Your task to perform on an android device: Show me productivity apps on the Play Store Image 0: 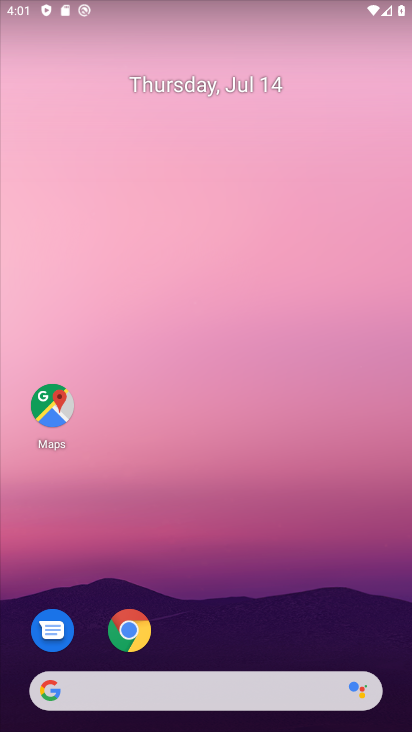
Step 0: drag from (237, 632) to (290, 358)
Your task to perform on an android device: Show me productivity apps on the Play Store Image 1: 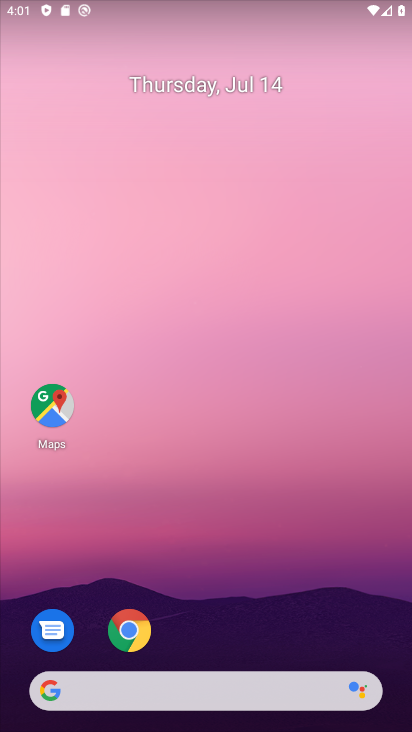
Step 1: drag from (292, 652) to (38, 703)
Your task to perform on an android device: Show me productivity apps on the Play Store Image 2: 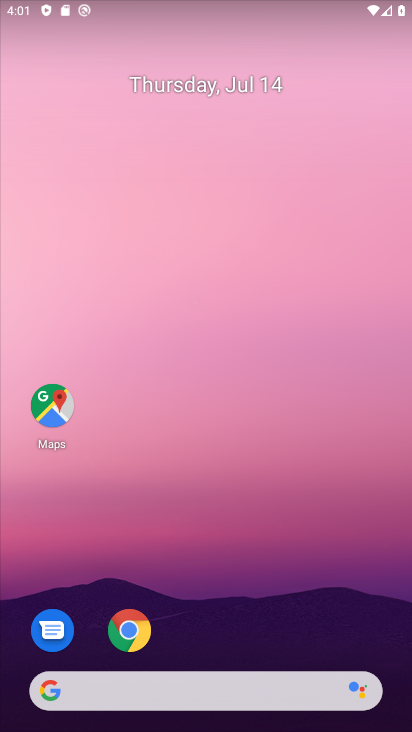
Step 2: drag from (225, 635) to (292, 1)
Your task to perform on an android device: Show me productivity apps on the Play Store Image 3: 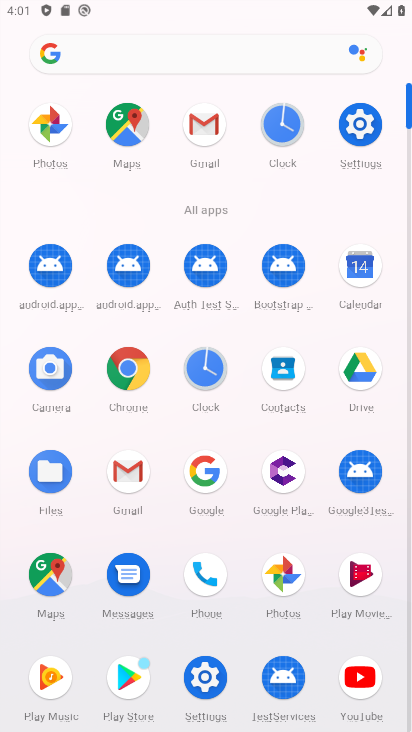
Step 3: click (129, 678)
Your task to perform on an android device: Show me productivity apps on the Play Store Image 4: 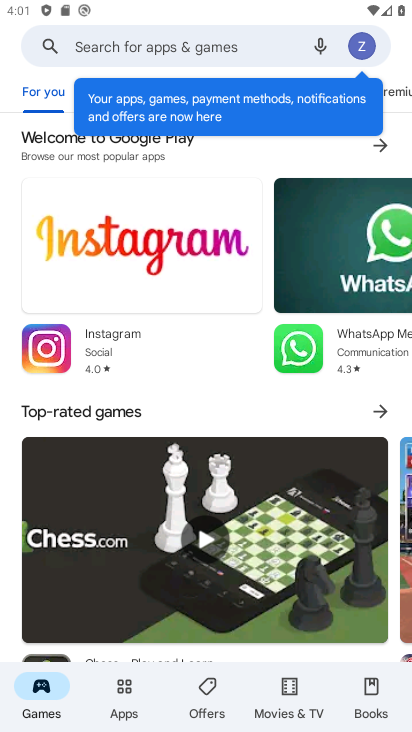
Step 4: click (118, 684)
Your task to perform on an android device: Show me productivity apps on the Play Store Image 5: 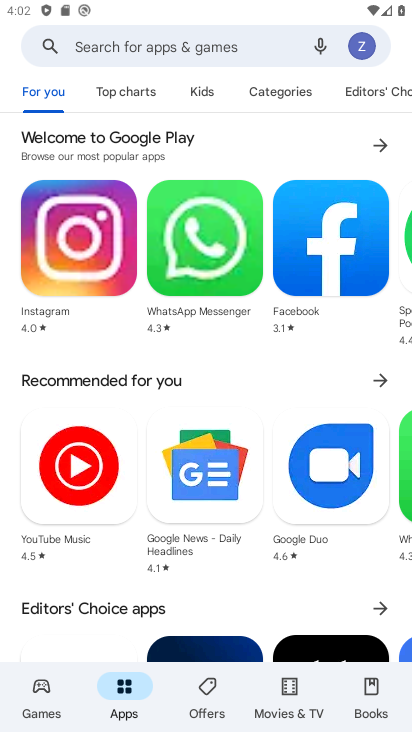
Step 5: click (284, 91)
Your task to perform on an android device: Show me productivity apps on the Play Store Image 6: 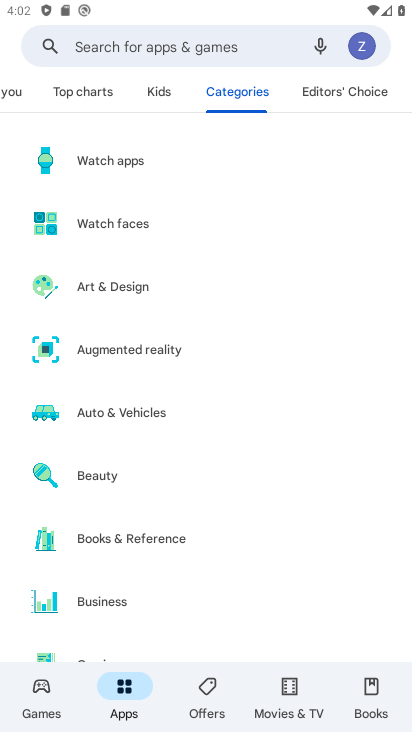
Step 6: drag from (137, 541) to (220, 0)
Your task to perform on an android device: Show me productivity apps on the Play Store Image 7: 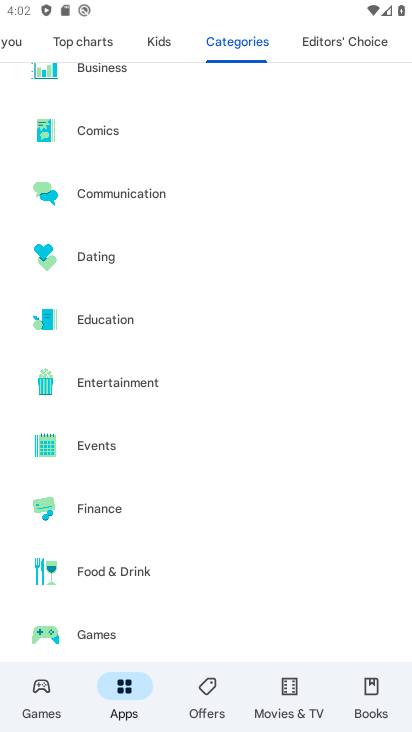
Step 7: drag from (138, 615) to (195, 46)
Your task to perform on an android device: Show me productivity apps on the Play Store Image 8: 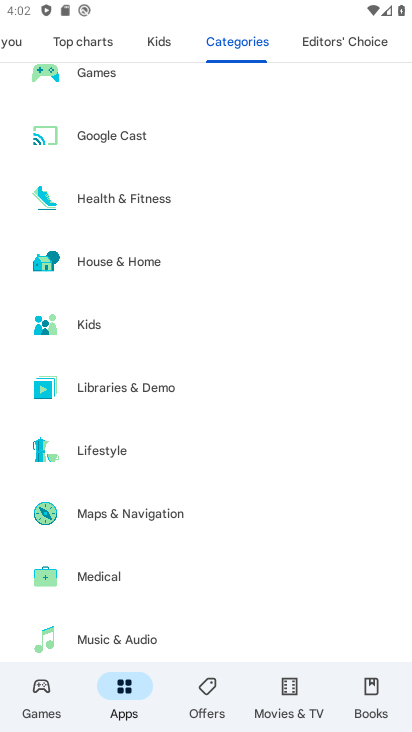
Step 8: drag from (140, 589) to (182, 127)
Your task to perform on an android device: Show me productivity apps on the Play Store Image 9: 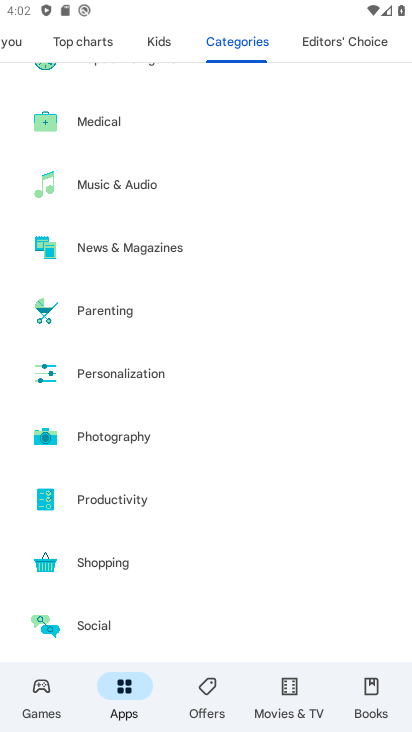
Step 9: click (95, 504)
Your task to perform on an android device: Show me productivity apps on the Play Store Image 10: 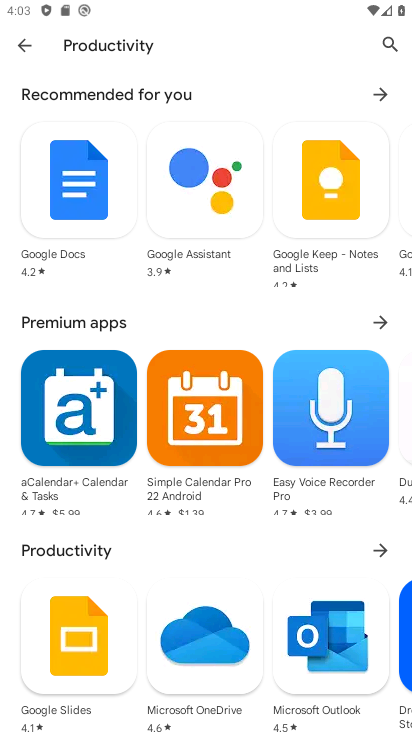
Step 10: task complete